Your task to perform on an android device: Turn on the flashlight Image 0: 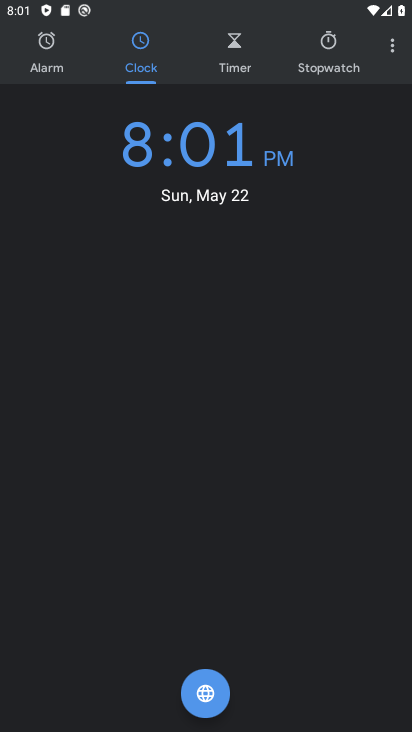
Step 0: press home button
Your task to perform on an android device: Turn on the flashlight Image 1: 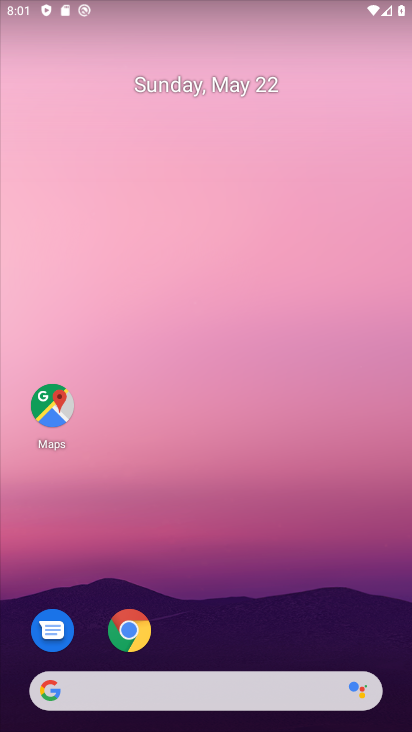
Step 1: drag from (321, 522) to (180, 63)
Your task to perform on an android device: Turn on the flashlight Image 2: 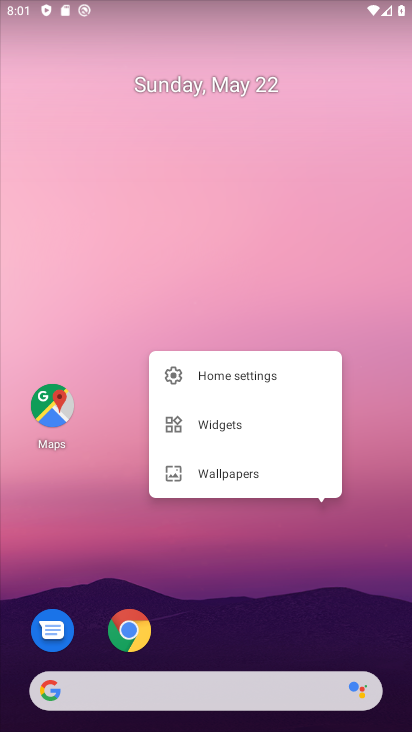
Step 2: click (296, 571)
Your task to perform on an android device: Turn on the flashlight Image 3: 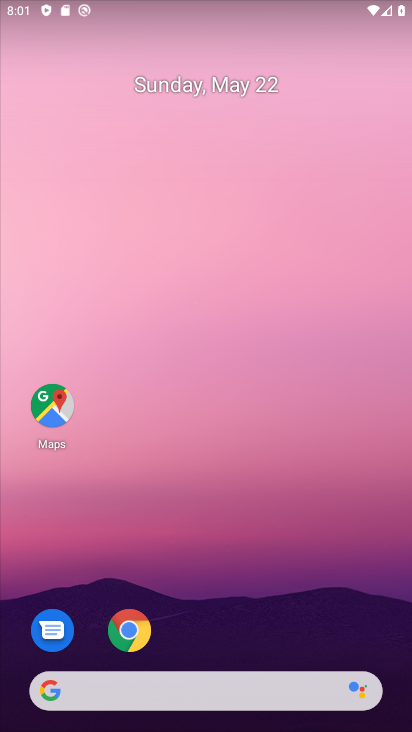
Step 3: drag from (296, 571) to (354, 129)
Your task to perform on an android device: Turn on the flashlight Image 4: 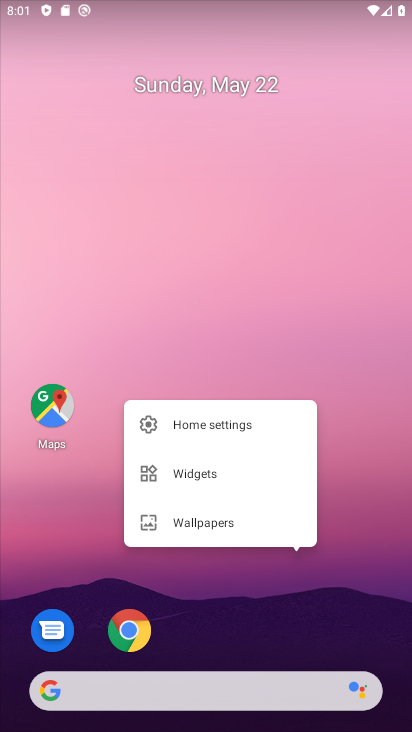
Step 4: click (349, 246)
Your task to perform on an android device: Turn on the flashlight Image 5: 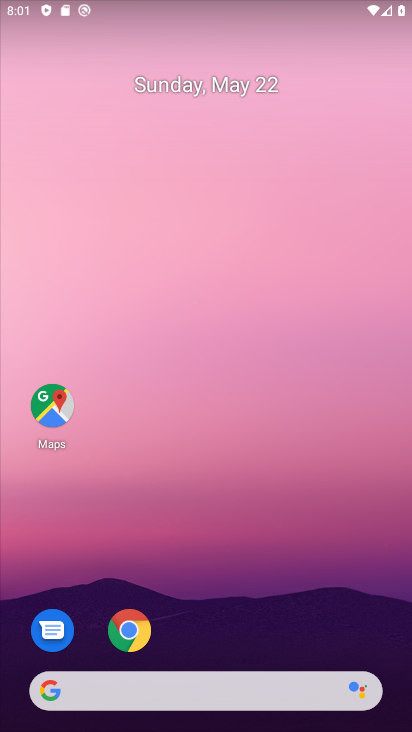
Step 5: drag from (253, 617) to (281, 72)
Your task to perform on an android device: Turn on the flashlight Image 6: 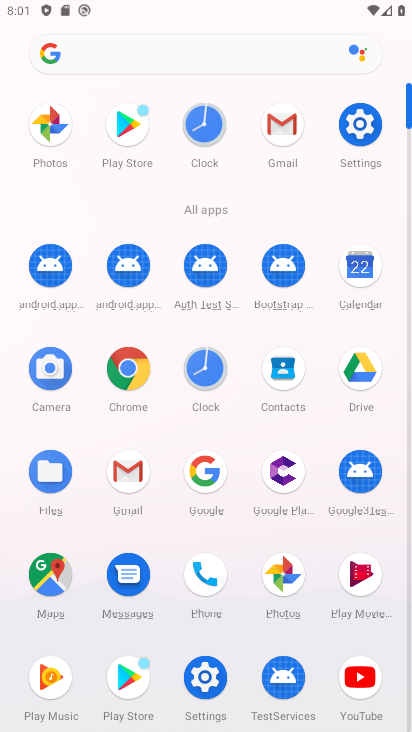
Step 6: click (361, 167)
Your task to perform on an android device: Turn on the flashlight Image 7: 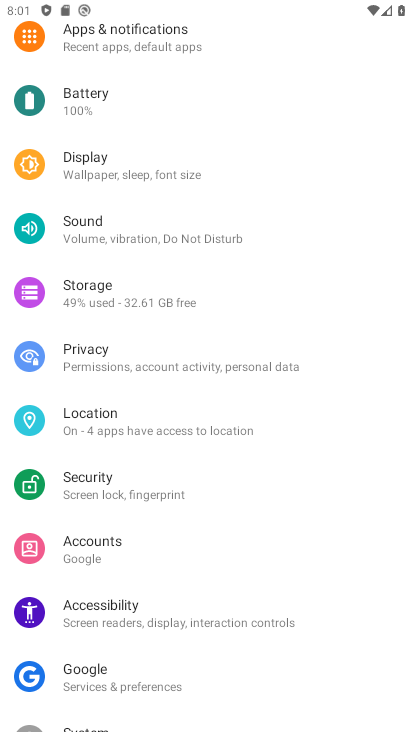
Step 7: click (143, 220)
Your task to perform on an android device: Turn on the flashlight Image 8: 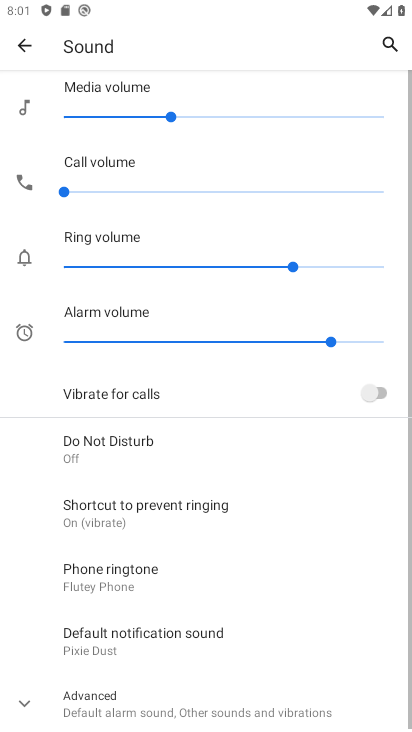
Step 8: task complete